Your task to perform on an android device: Do I have any events this weekend? Image 0: 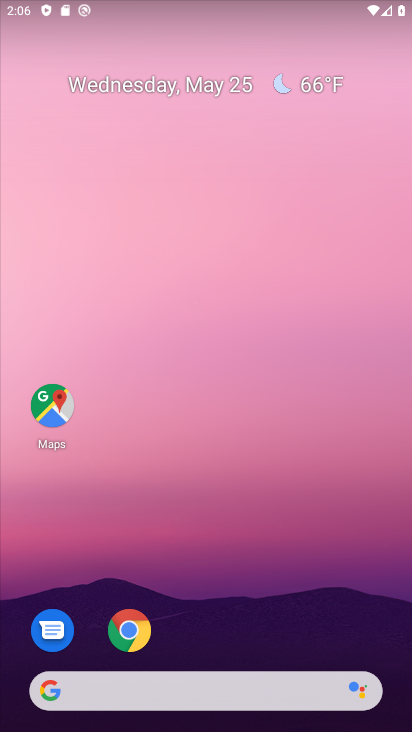
Step 0: drag from (226, 659) to (252, 95)
Your task to perform on an android device: Do I have any events this weekend? Image 1: 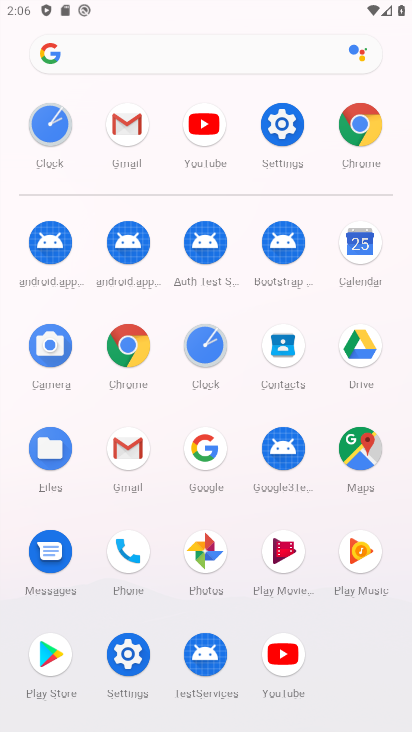
Step 1: click (362, 237)
Your task to perform on an android device: Do I have any events this weekend? Image 2: 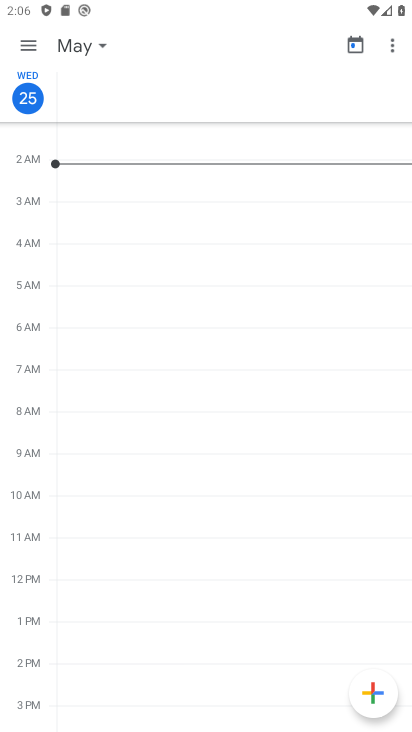
Step 2: click (36, 47)
Your task to perform on an android device: Do I have any events this weekend? Image 3: 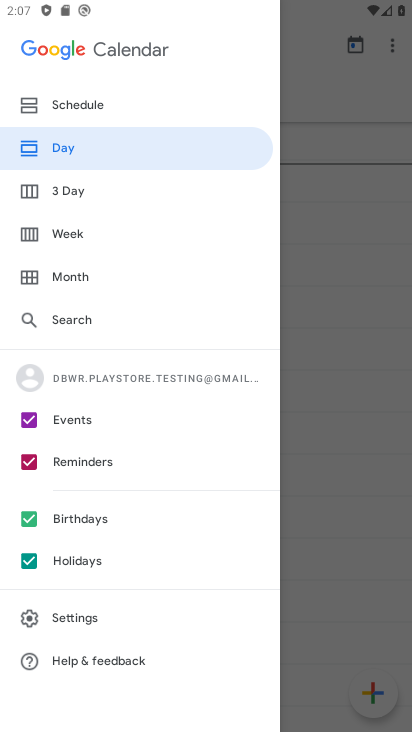
Step 3: click (27, 456)
Your task to perform on an android device: Do I have any events this weekend? Image 4: 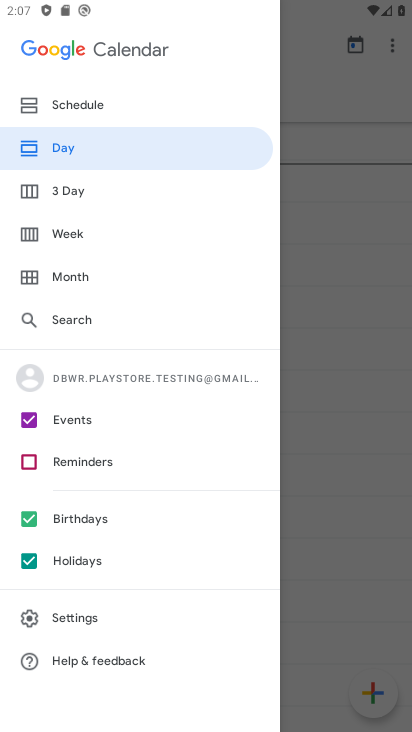
Step 4: click (22, 513)
Your task to perform on an android device: Do I have any events this weekend? Image 5: 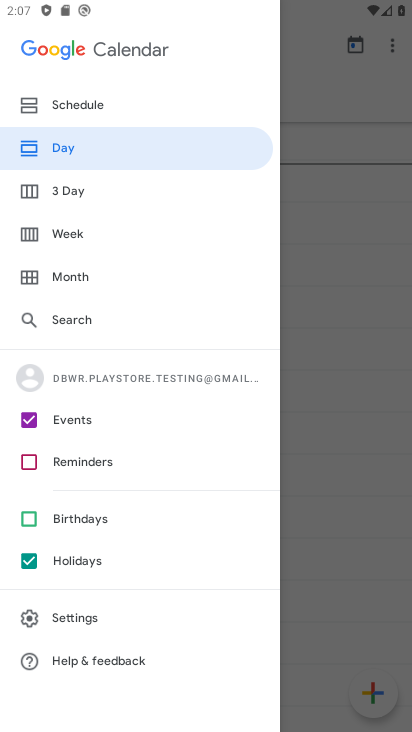
Step 5: click (31, 563)
Your task to perform on an android device: Do I have any events this weekend? Image 6: 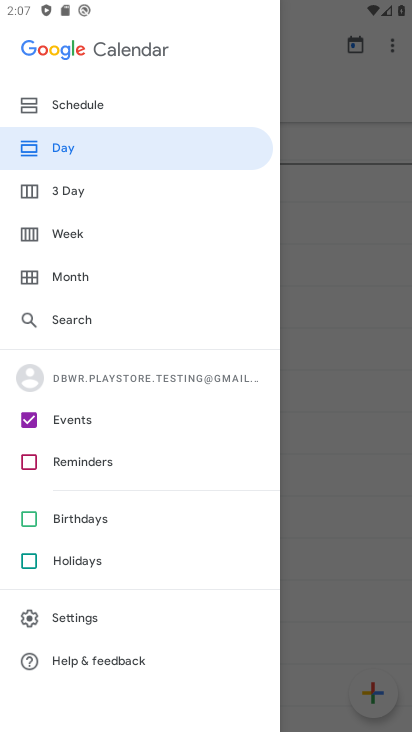
Step 6: click (59, 233)
Your task to perform on an android device: Do I have any events this weekend? Image 7: 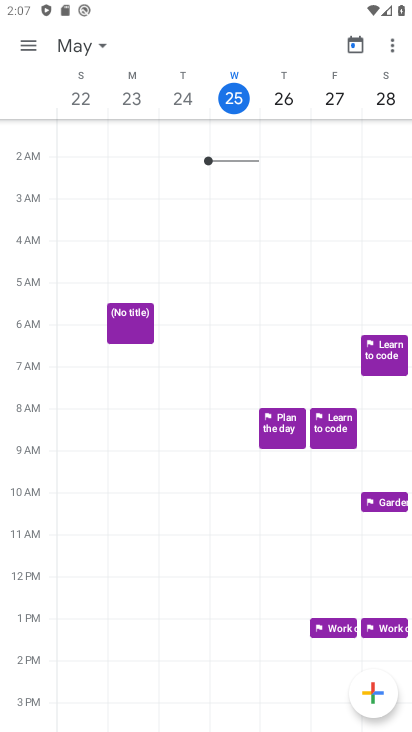
Step 7: click (235, 93)
Your task to perform on an android device: Do I have any events this weekend? Image 8: 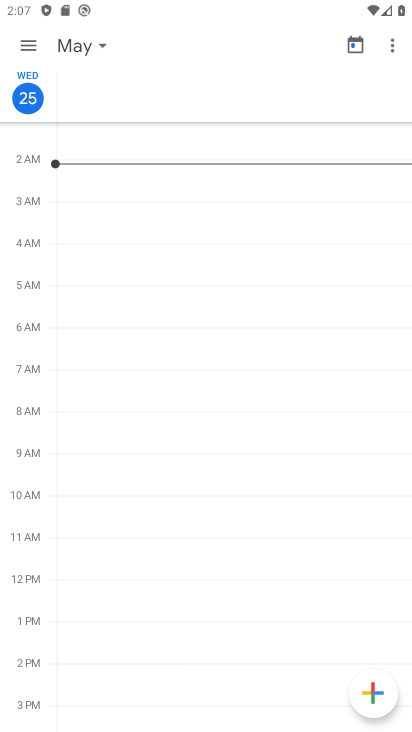
Step 8: click (46, 101)
Your task to perform on an android device: Do I have any events this weekend? Image 9: 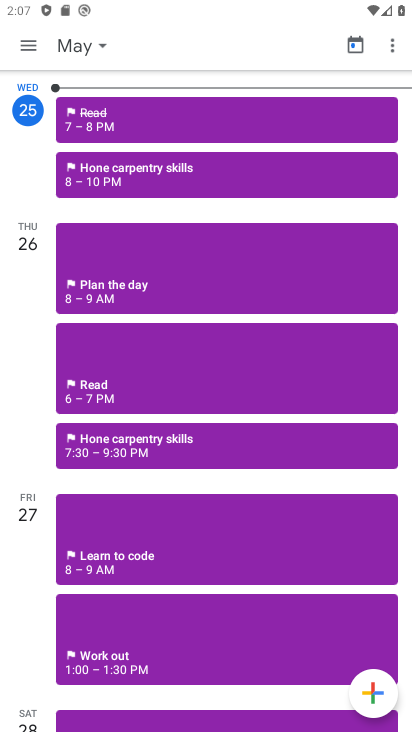
Step 9: task complete